Your task to perform on an android device: open app "Facebook Messenger" (install if not already installed) and go to login screen Image 0: 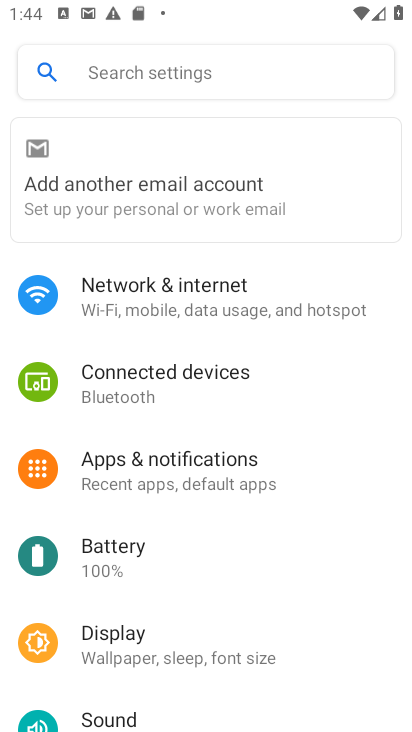
Step 0: drag from (275, 609) to (300, 355)
Your task to perform on an android device: open app "Facebook Messenger" (install if not already installed) and go to login screen Image 1: 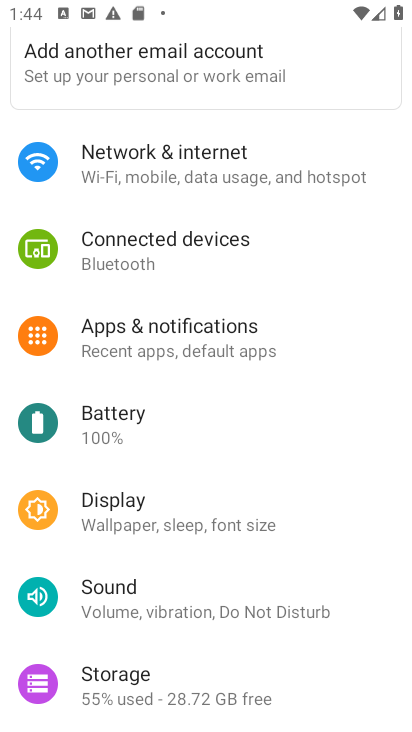
Step 1: press home button
Your task to perform on an android device: open app "Facebook Messenger" (install if not already installed) and go to login screen Image 2: 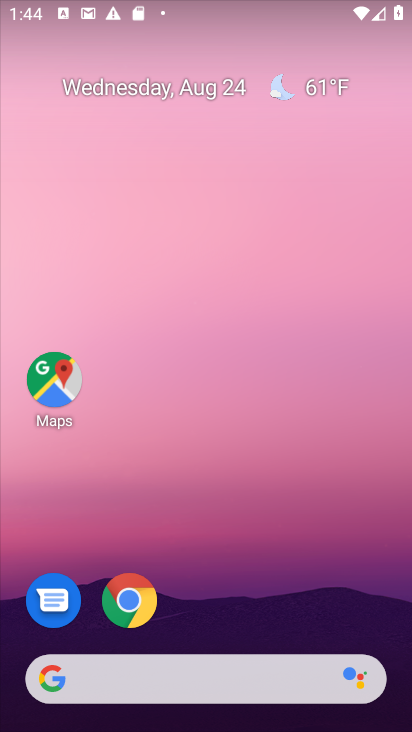
Step 2: drag from (261, 638) to (303, 90)
Your task to perform on an android device: open app "Facebook Messenger" (install if not already installed) and go to login screen Image 3: 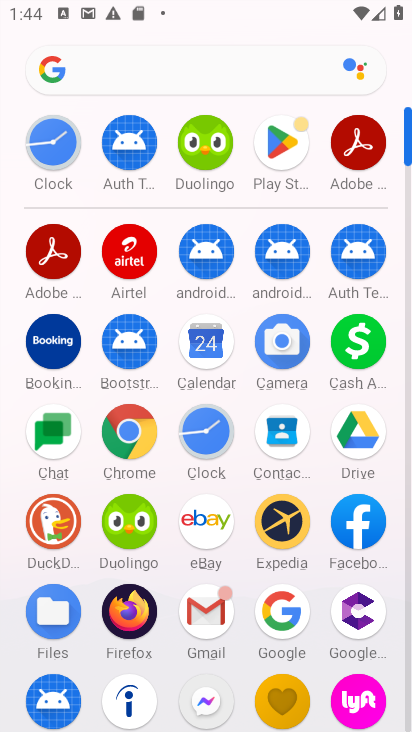
Step 3: click (278, 152)
Your task to perform on an android device: open app "Facebook Messenger" (install if not already installed) and go to login screen Image 4: 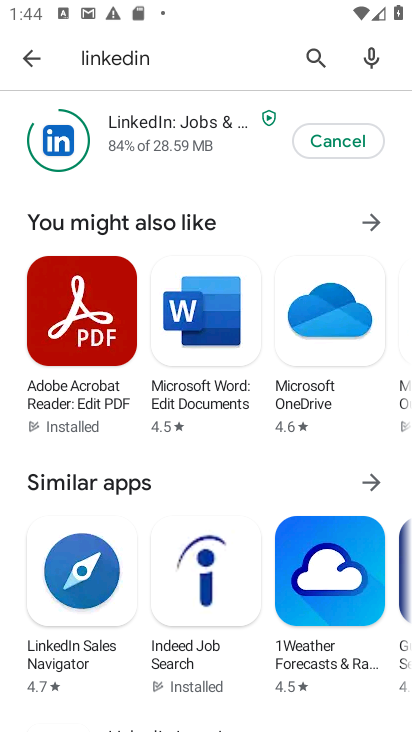
Step 4: click (323, 64)
Your task to perform on an android device: open app "Facebook Messenger" (install if not already installed) and go to login screen Image 5: 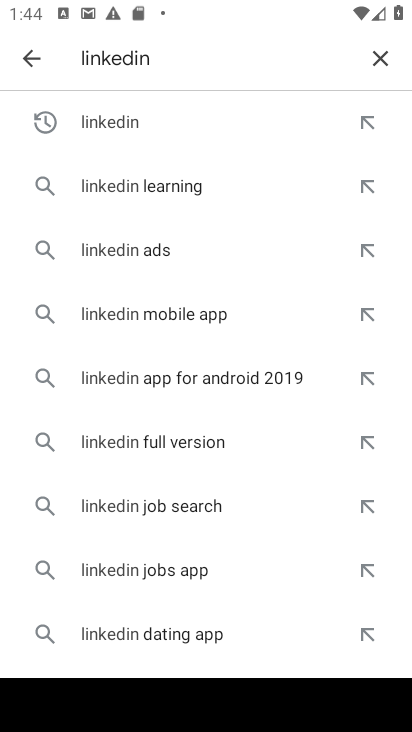
Step 5: click (380, 64)
Your task to perform on an android device: open app "Facebook Messenger" (install if not already installed) and go to login screen Image 6: 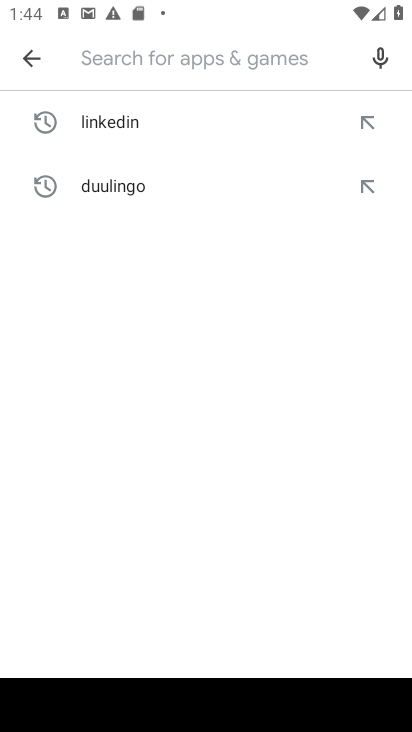
Step 6: type "facebook"
Your task to perform on an android device: open app "Facebook Messenger" (install if not already installed) and go to login screen Image 7: 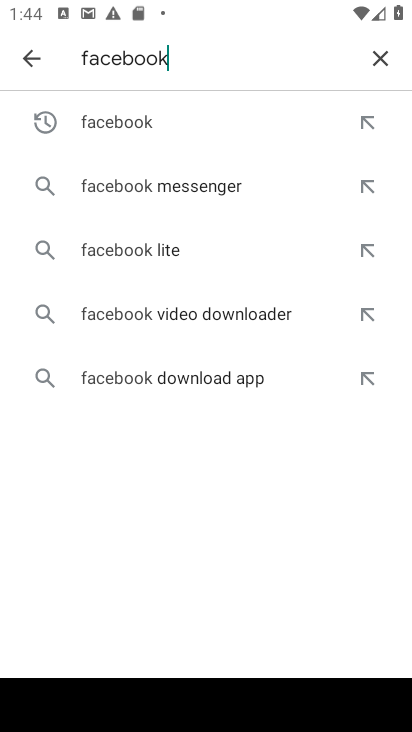
Step 7: click (214, 144)
Your task to perform on an android device: open app "Facebook Messenger" (install if not already installed) and go to login screen Image 8: 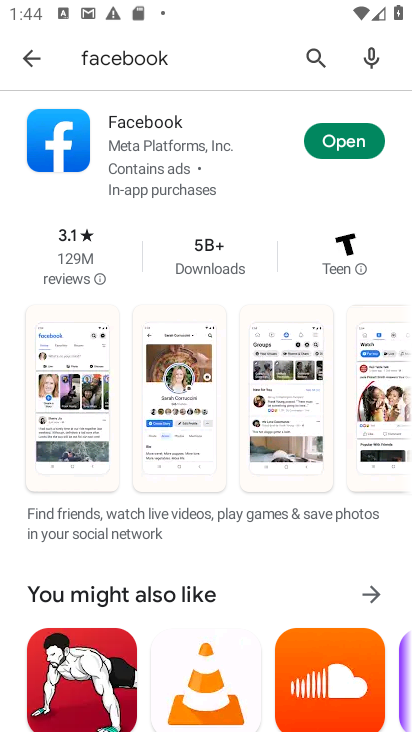
Step 8: click (333, 137)
Your task to perform on an android device: open app "Facebook Messenger" (install if not already installed) and go to login screen Image 9: 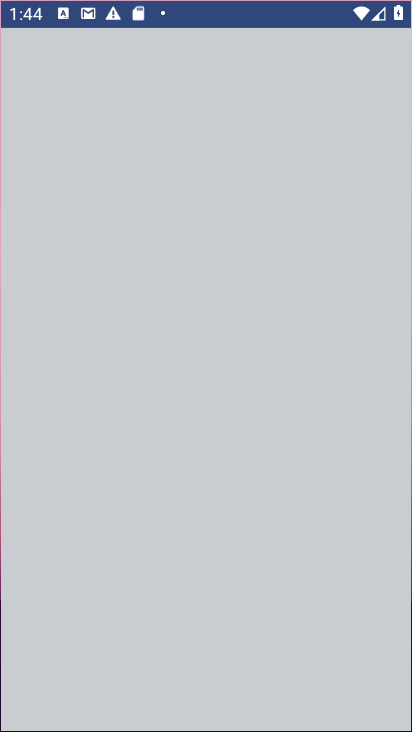
Step 9: task complete